Your task to perform on an android device: Go to location settings Image 0: 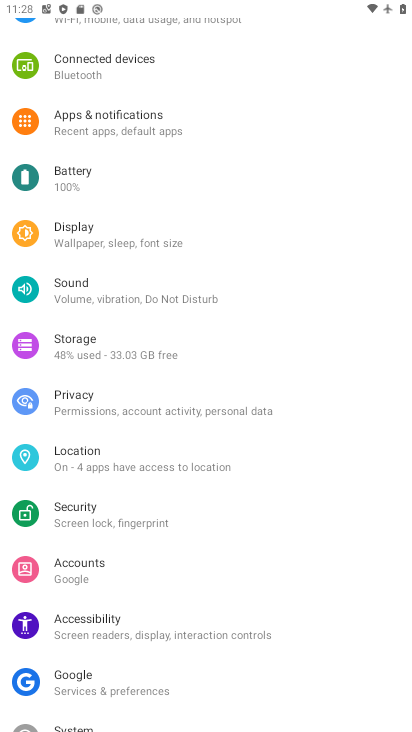
Step 0: click (167, 463)
Your task to perform on an android device: Go to location settings Image 1: 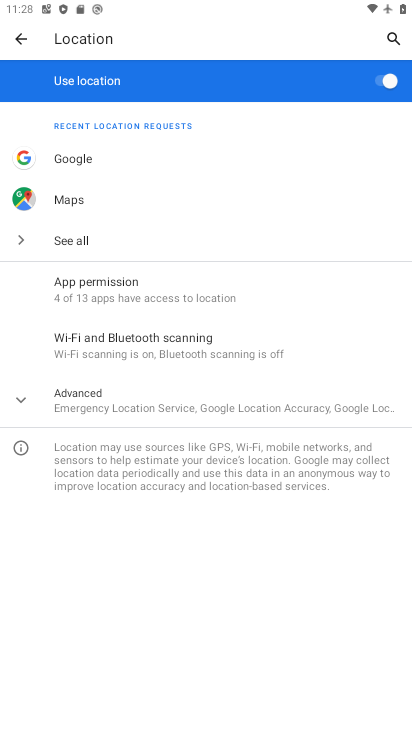
Step 1: click (91, 400)
Your task to perform on an android device: Go to location settings Image 2: 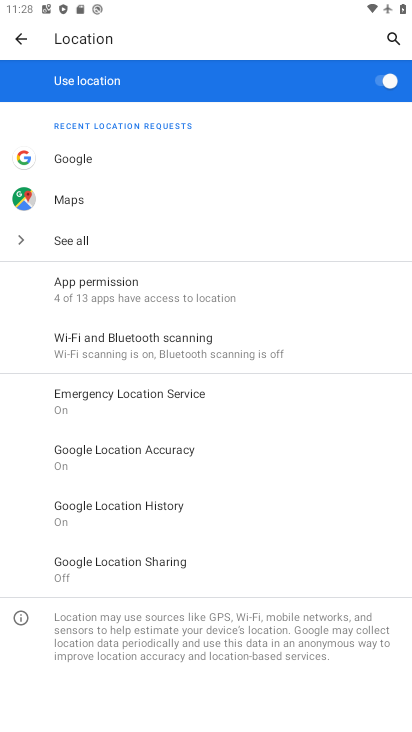
Step 2: task complete